Your task to perform on an android device: toggle translation in the chrome app Image 0: 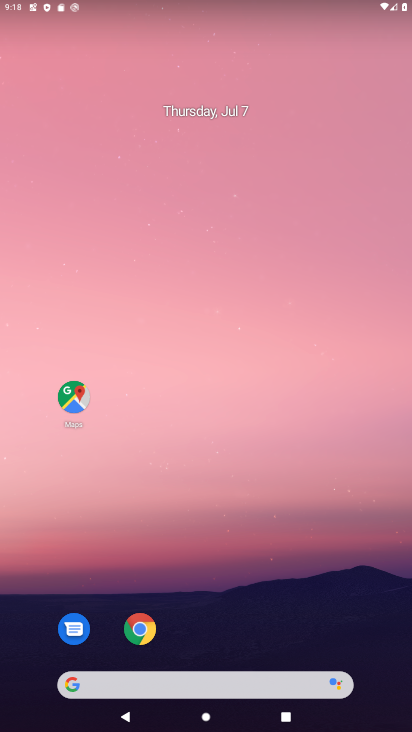
Step 0: click (138, 625)
Your task to perform on an android device: toggle translation in the chrome app Image 1: 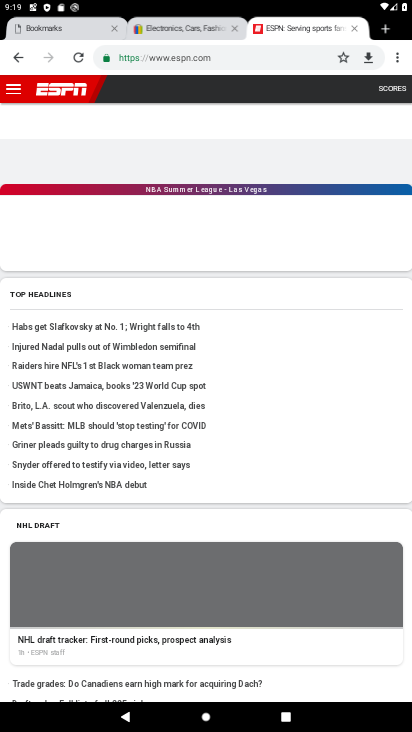
Step 1: click (397, 53)
Your task to perform on an android device: toggle translation in the chrome app Image 2: 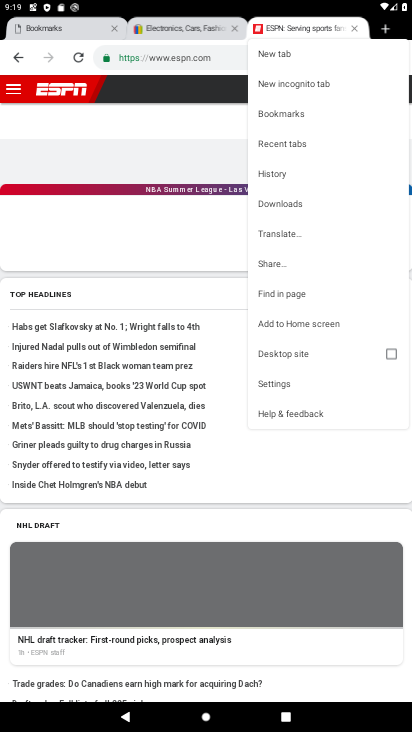
Step 2: click (279, 379)
Your task to perform on an android device: toggle translation in the chrome app Image 3: 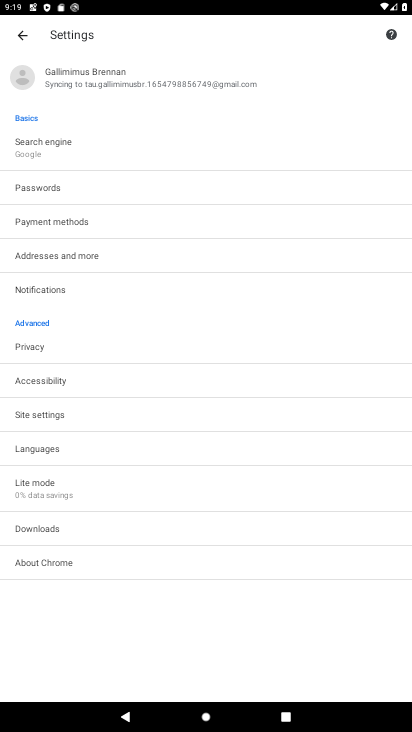
Step 3: click (38, 448)
Your task to perform on an android device: toggle translation in the chrome app Image 4: 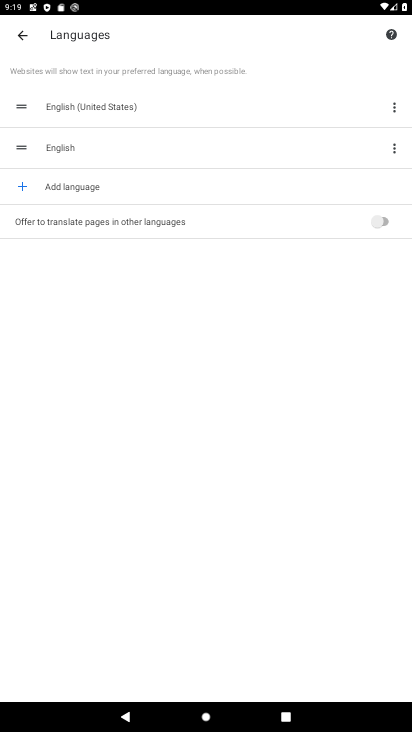
Step 4: click (376, 220)
Your task to perform on an android device: toggle translation in the chrome app Image 5: 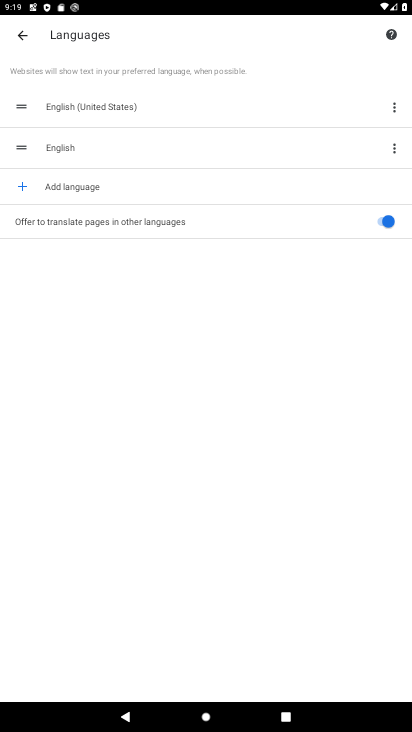
Step 5: task complete